Your task to perform on an android device: change text size in settings app Image 0: 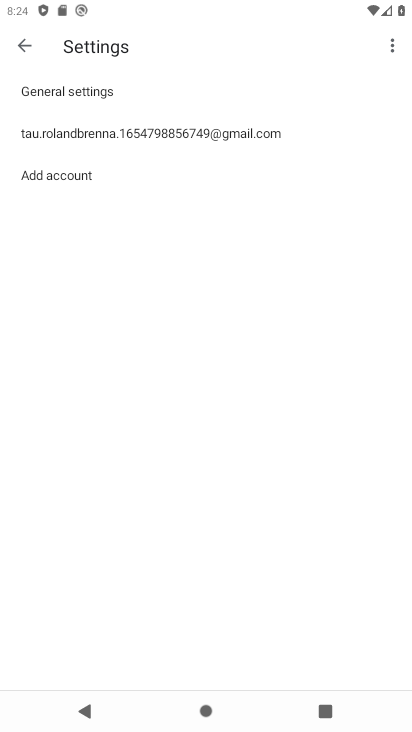
Step 0: press home button
Your task to perform on an android device: change text size in settings app Image 1: 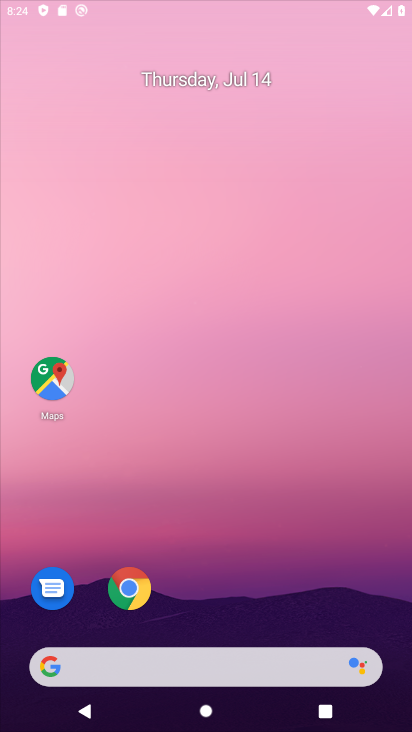
Step 1: drag from (240, 633) to (303, 56)
Your task to perform on an android device: change text size in settings app Image 2: 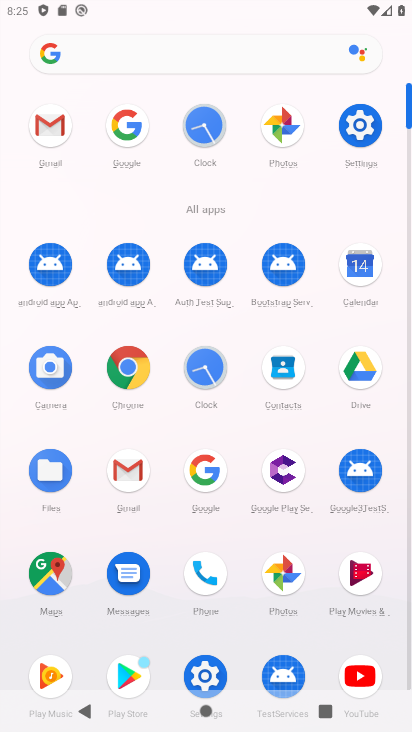
Step 2: click (366, 125)
Your task to perform on an android device: change text size in settings app Image 3: 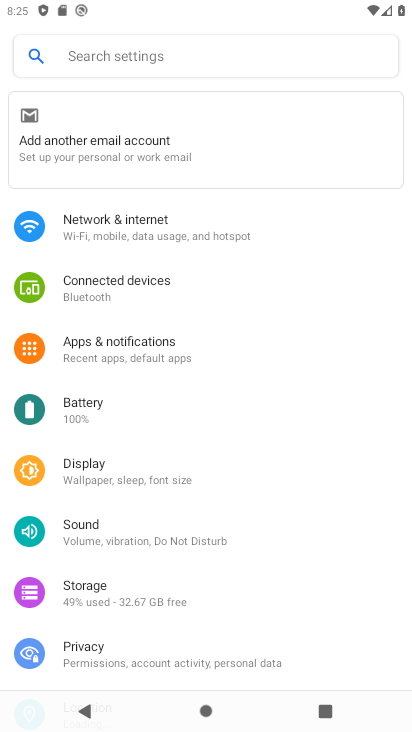
Step 3: click (131, 473)
Your task to perform on an android device: change text size in settings app Image 4: 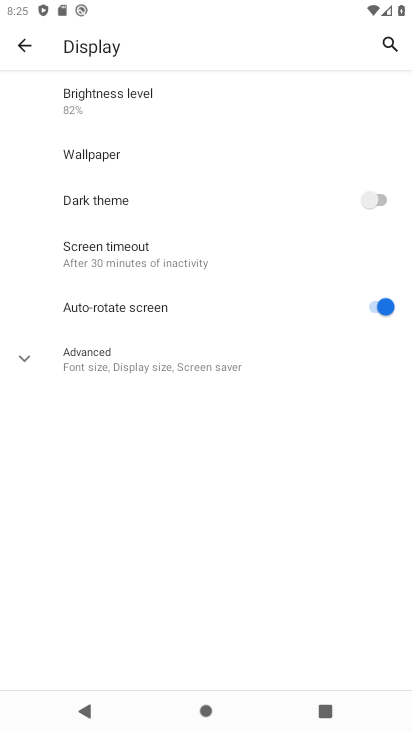
Step 4: click (75, 364)
Your task to perform on an android device: change text size in settings app Image 5: 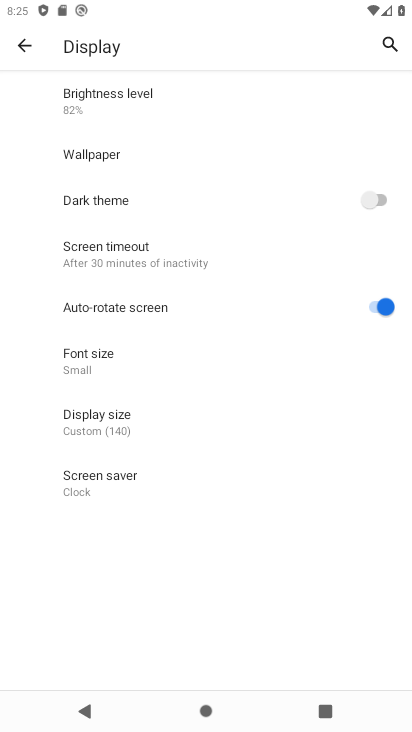
Step 5: click (98, 382)
Your task to perform on an android device: change text size in settings app Image 6: 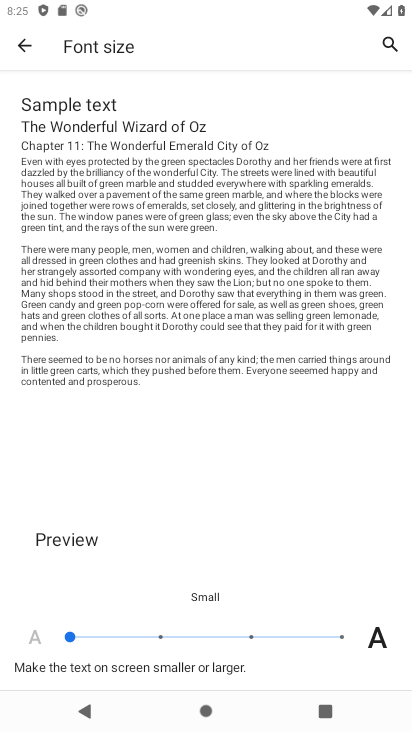
Step 6: task complete